Your task to perform on an android device: set default search engine in the chrome app Image 0: 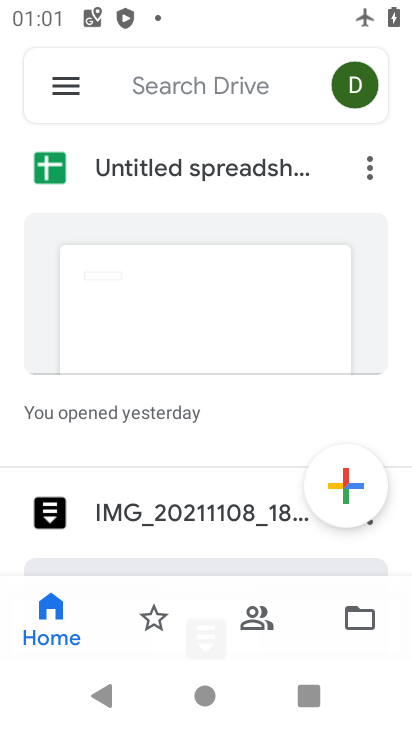
Step 0: press home button
Your task to perform on an android device: set default search engine in the chrome app Image 1: 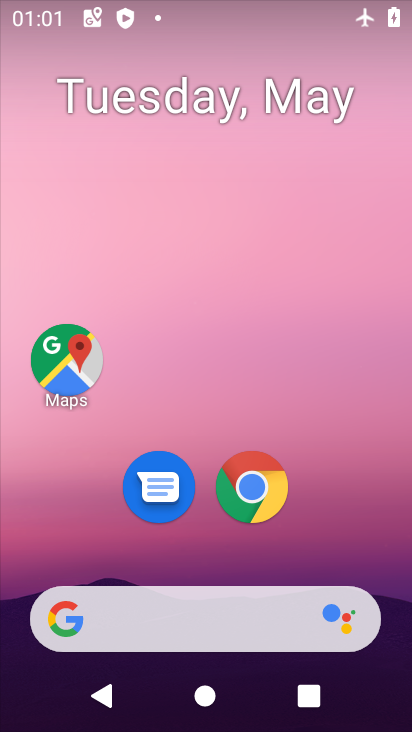
Step 1: click (249, 486)
Your task to perform on an android device: set default search engine in the chrome app Image 2: 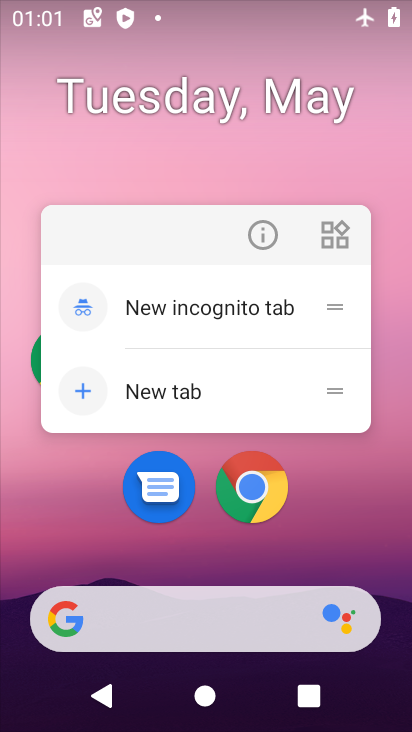
Step 2: click (248, 486)
Your task to perform on an android device: set default search engine in the chrome app Image 3: 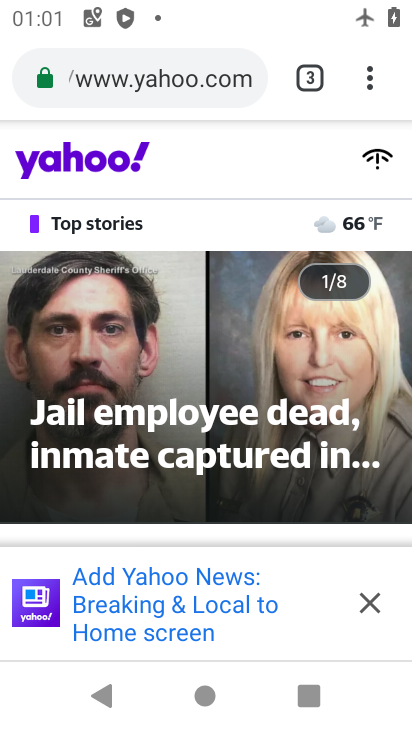
Step 3: click (377, 76)
Your task to perform on an android device: set default search engine in the chrome app Image 4: 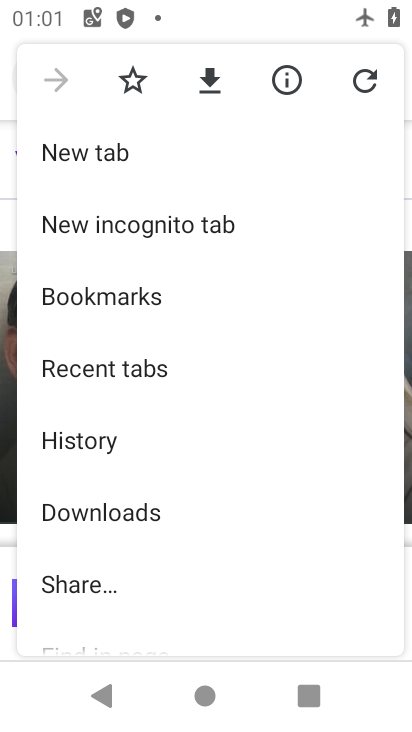
Step 4: drag from (113, 577) to (156, 255)
Your task to perform on an android device: set default search engine in the chrome app Image 5: 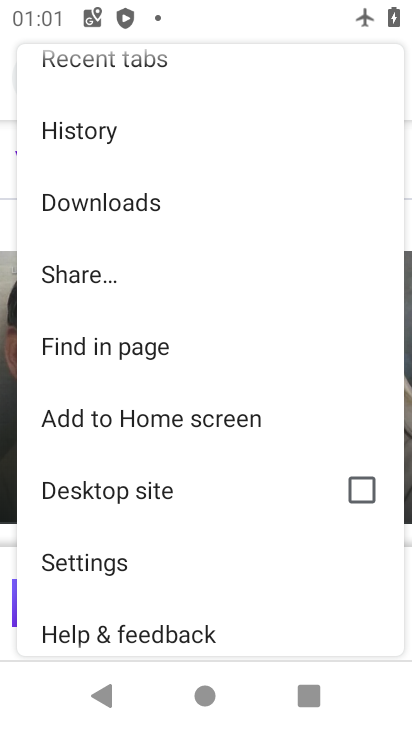
Step 5: click (151, 558)
Your task to perform on an android device: set default search engine in the chrome app Image 6: 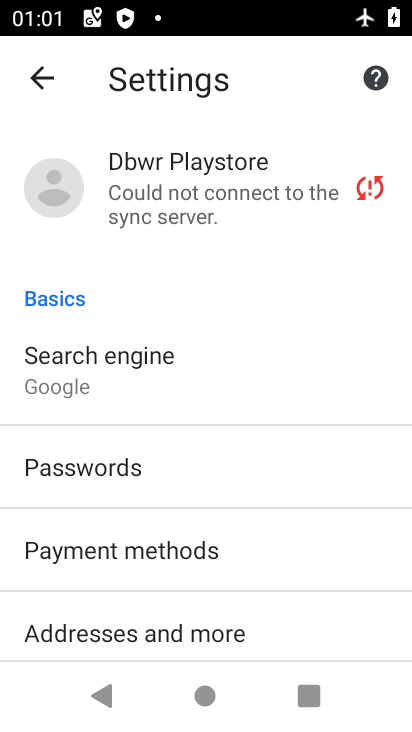
Step 6: drag from (242, 598) to (218, 242)
Your task to perform on an android device: set default search engine in the chrome app Image 7: 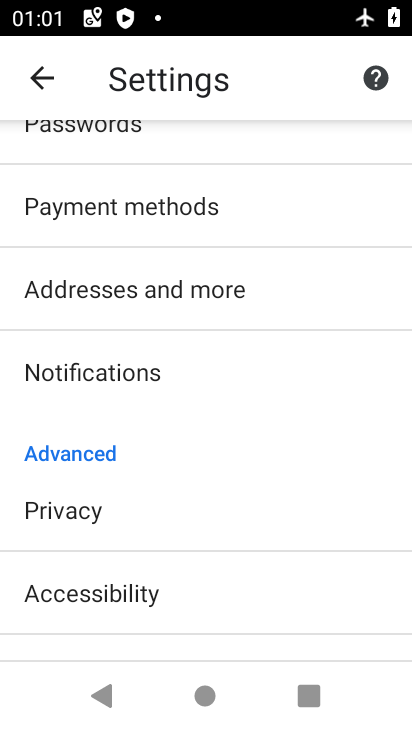
Step 7: drag from (240, 196) to (206, 644)
Your task to perform on an android device: set default search engine in the chrome app Image 8: 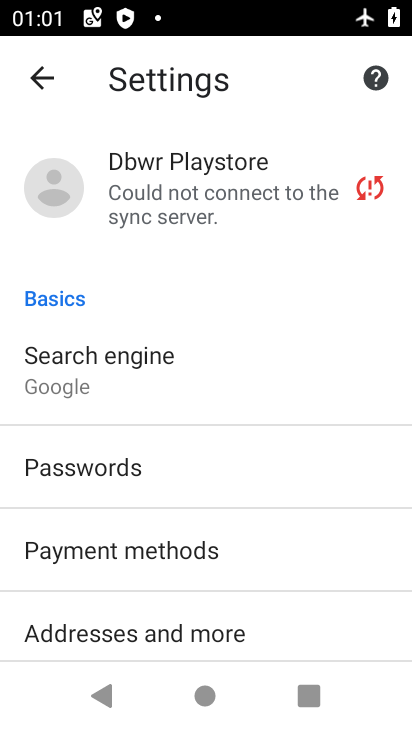
Step 8: click (142, 379)
Your task to perform on an android device: set default search engine in the chrome app Image 9: 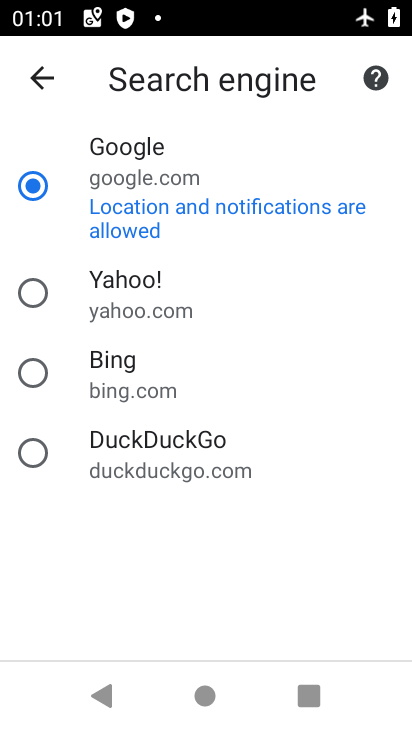
Step 9: task complete